Your task to perform on an android device: Open internet settings Image 0: 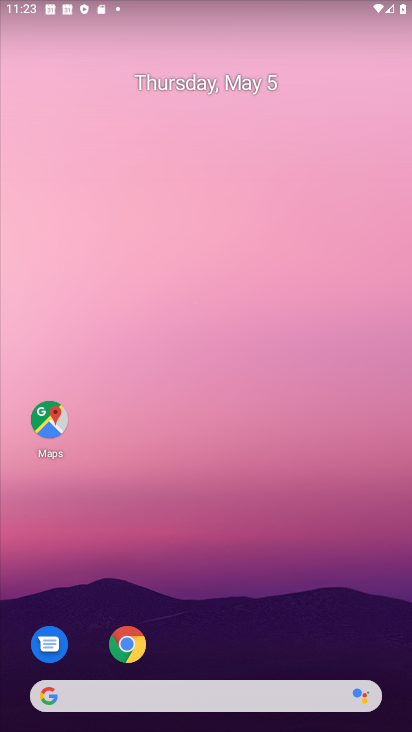
Step 0: drag from (208, 591) to (386, 5)
Your task to perform on an android device: Open internet settings Image 1: 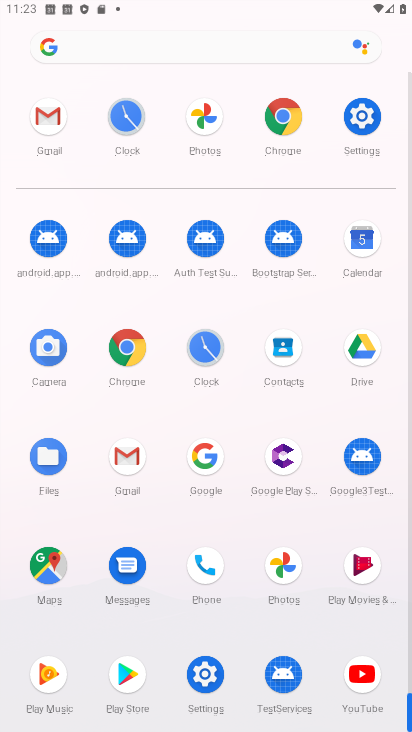
Step 1: click (355, 125)
Your task to perform on an android device: Open internet settings Image 2: 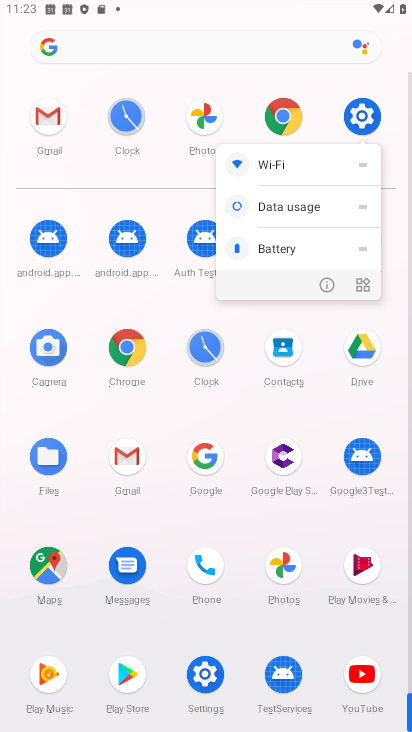
Step 2: click (326, 276)
Your task to perform on an android device: Open internet settings Image 3: 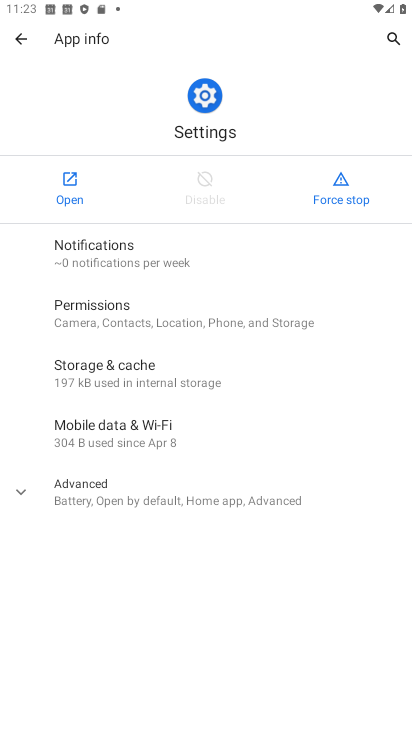
Step 3: click (70, 183)
Your task to perform on an android device: Open internet settings Image 4: 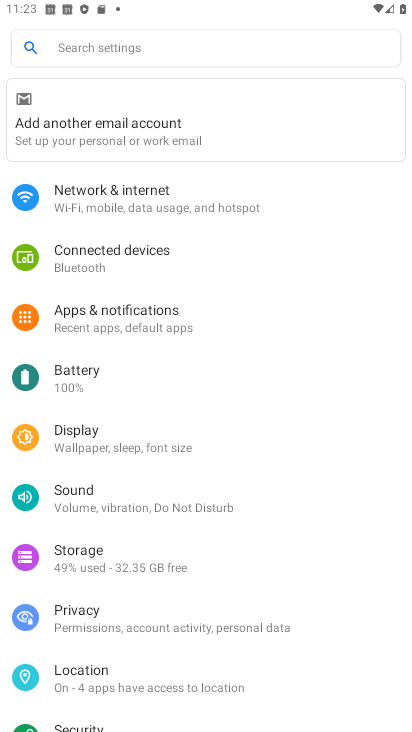
Step 4: click (174, 193)
Your task to perform on an android device: Open internet settings Image 5: 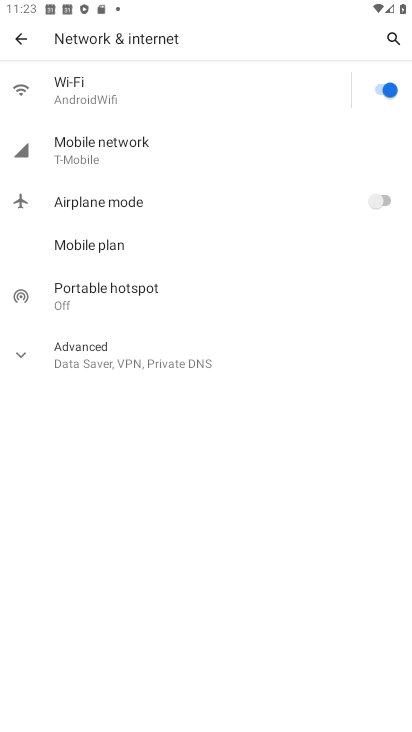
Step 5: task complete